Your task to perform on an android device: Open display settings Image 0: 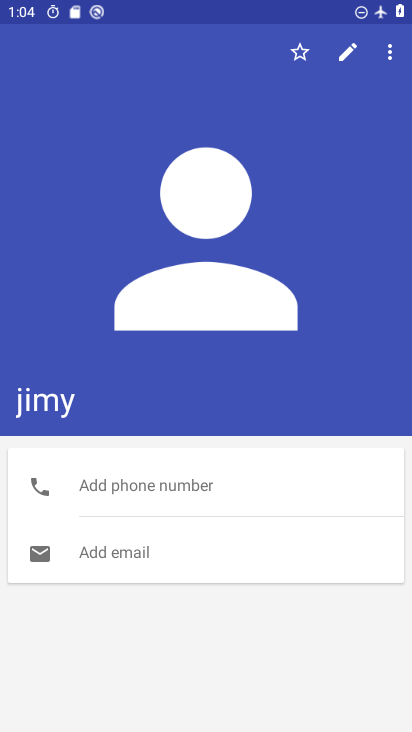
Step 0: press home button
Your task to perform on an android device: Open display settings Image 1: 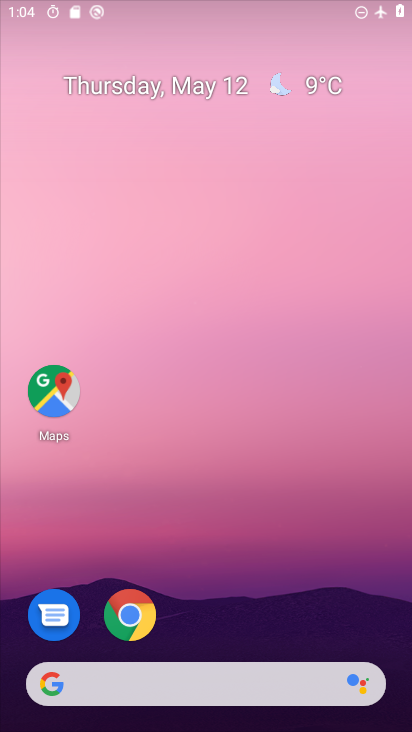
Step 1: drag from (270, 606) to (262, 144)
Your task to perform on an android device: Open display settings Image 2: 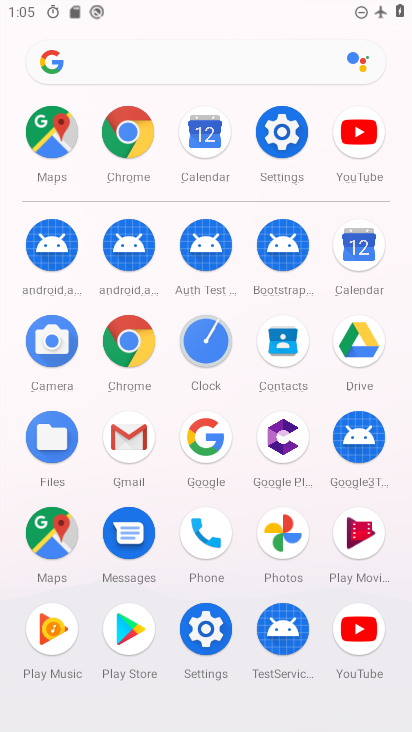
Step 2: click (275, 131)
Your task to perform on an android device: Open display settings Image 3: 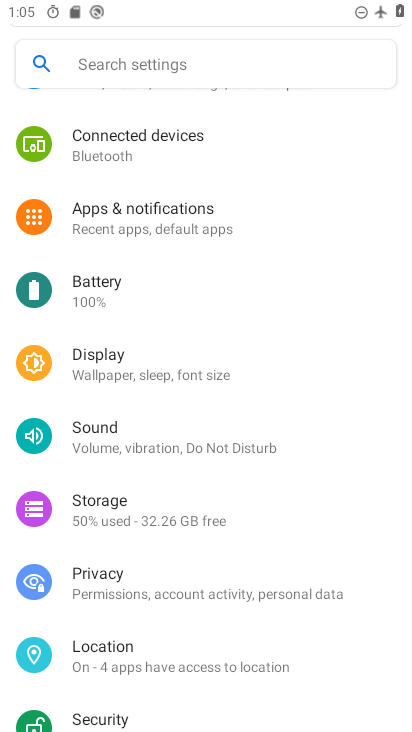
Step 3: drag from (135, 611) to (205, 356)
Your task to perform on an android device: Open display settings Image 4: 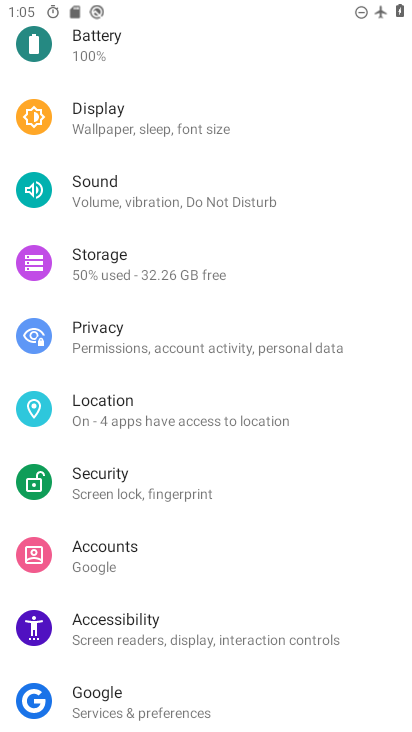
Step 4: click (164, 121)
Your task to perform on an android device: Open display settings Image 5: 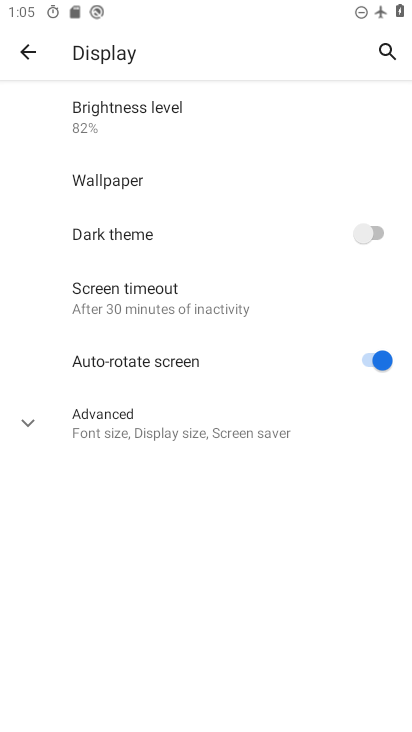
Step 5: task complete